Your task to perform on an android device: Go to Google maps Image 0: 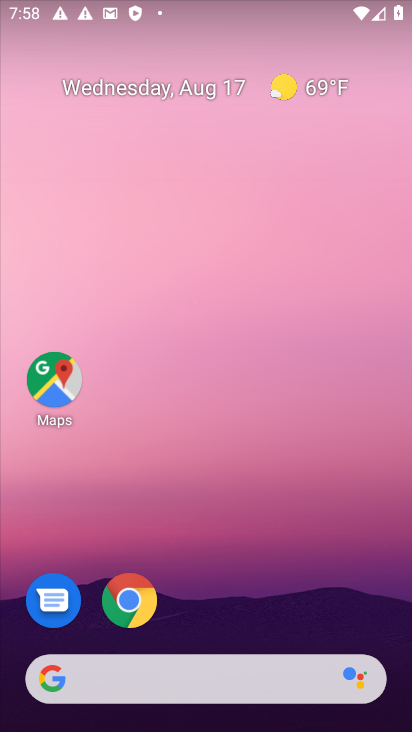
Step 0: press home button
Your task to perform on an android device: Go to Google maps Image 1: 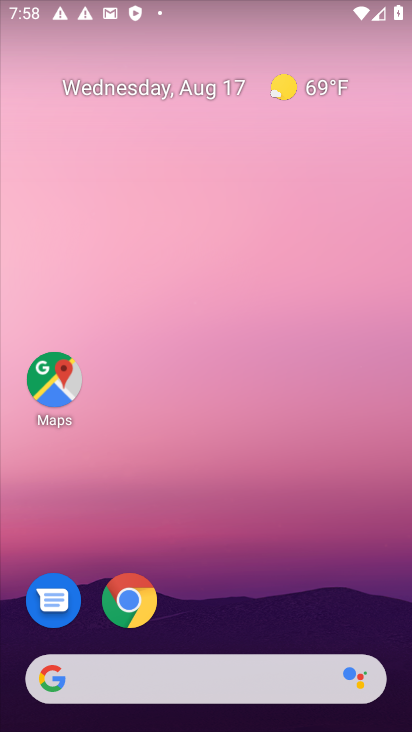
Step 1: click (58, 373)
Your task to perform on an android device: Go to Google maps Image 2: 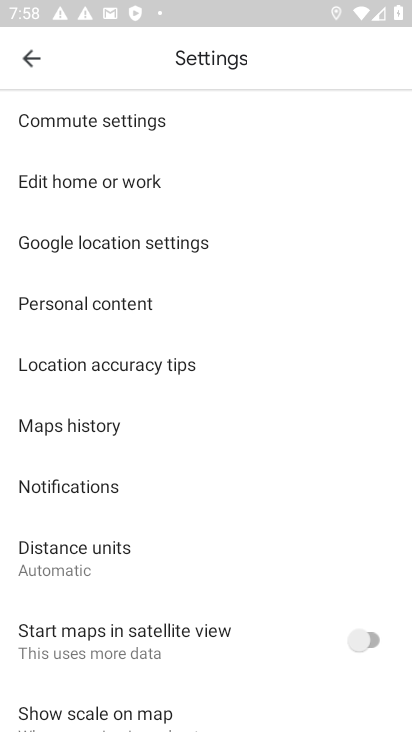
Step 2: task complete